Your task to perform on an android device: Open Google Image 0: 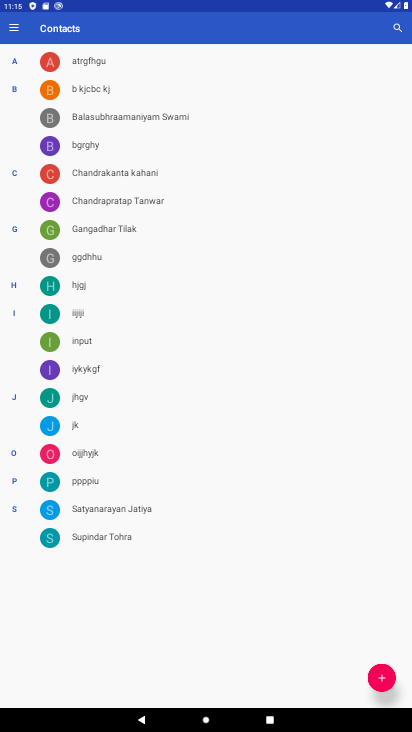
Step 0: press home button
Your task to perform on an android device: Open Google Image 1: 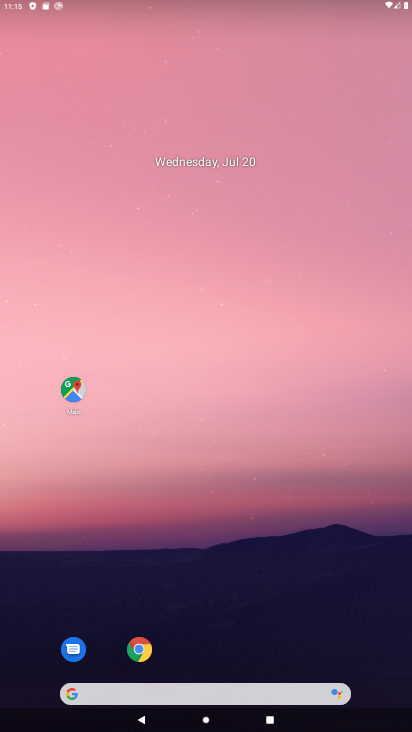
Step 1: drag from (187, 654) to (232, 120)
Your task to perform on an android device: Open Google Image 2: 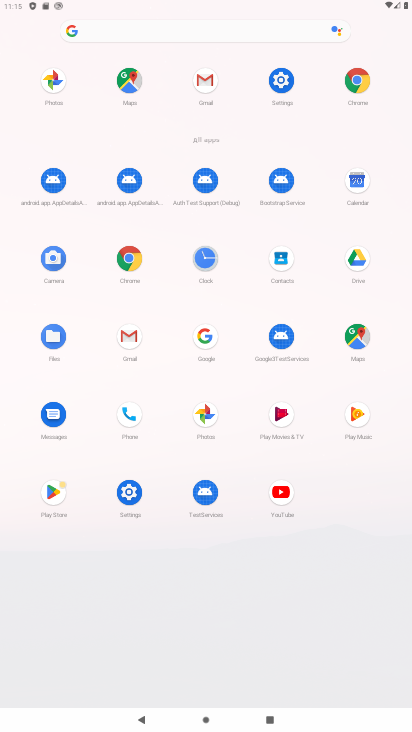
Step 2: click (206, 339)
Your task to perform on an android device: Open Google Image 3: 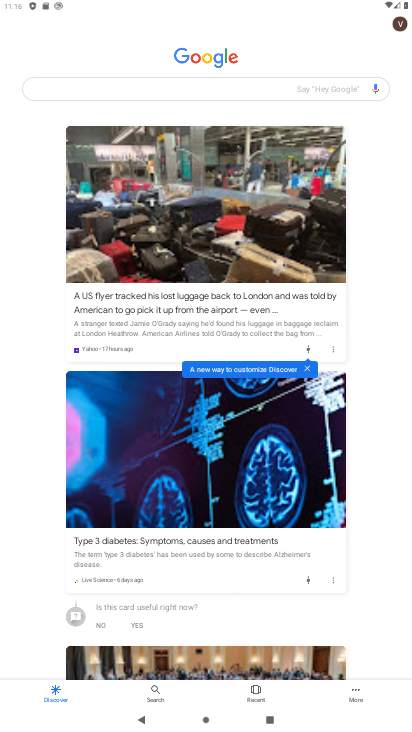
Step 3: task complete